Your task to perform on an android device: change text size in settings app Image 0: 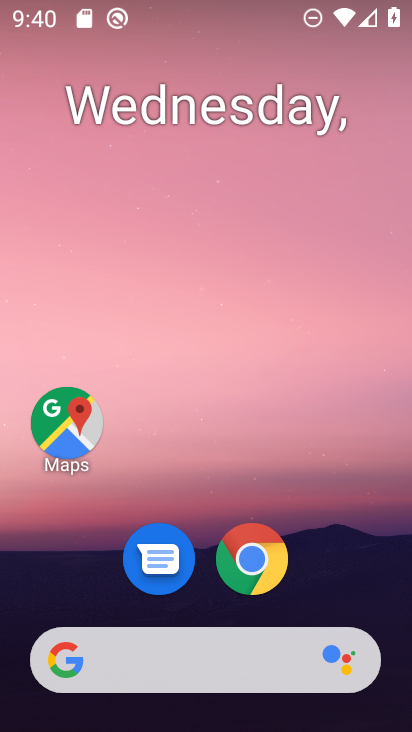
Step 0: drag from (370, 579) to (354, 157)
Your task to perform on an android device: change text size in settings app Image 1: 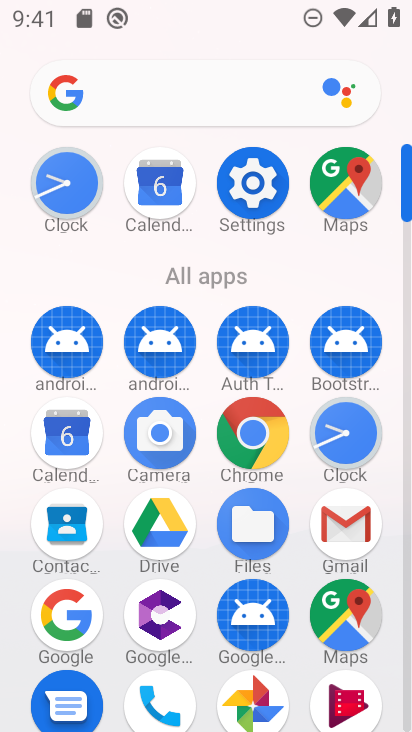
Step 1: click (254, 202)
Your task to perform on an android device: change text size in settings app Image 2: 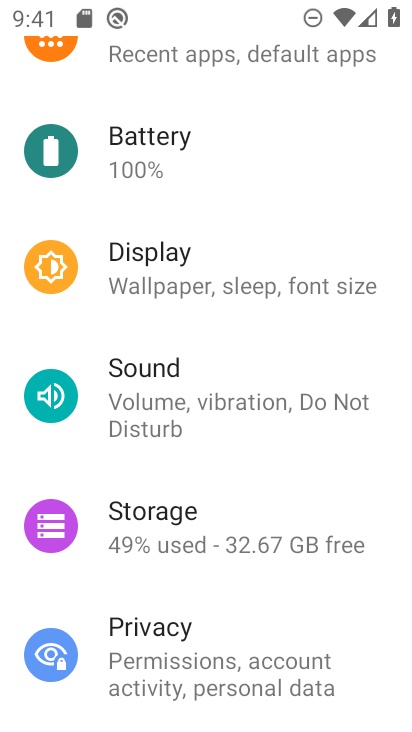
Step 2: drag from (328, 165) to (353, 308)
Your task to perform on an android device: change text size in settings app Image 3: 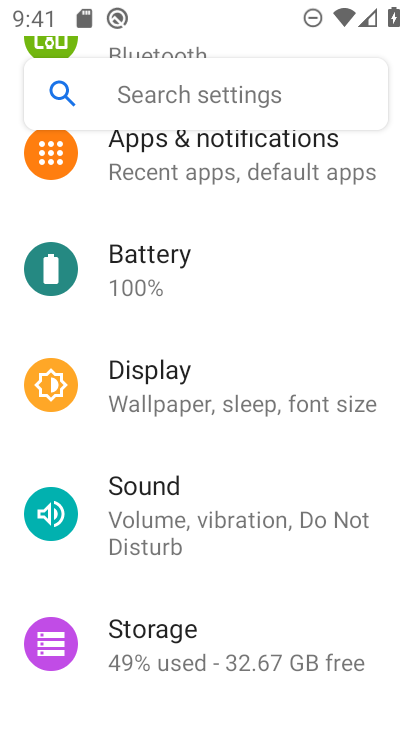
Step 3: drag from (366, 138) to (380, 321)
Your task to perform on an android device: change text size in settings app Image 4: 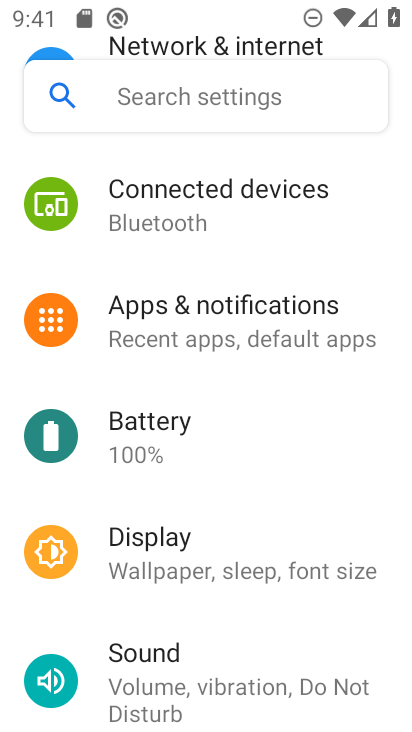
Step 4: drag from (369, 163) to (373, 330)
Your task to perform on an android device: change text size in settings app Image 5: 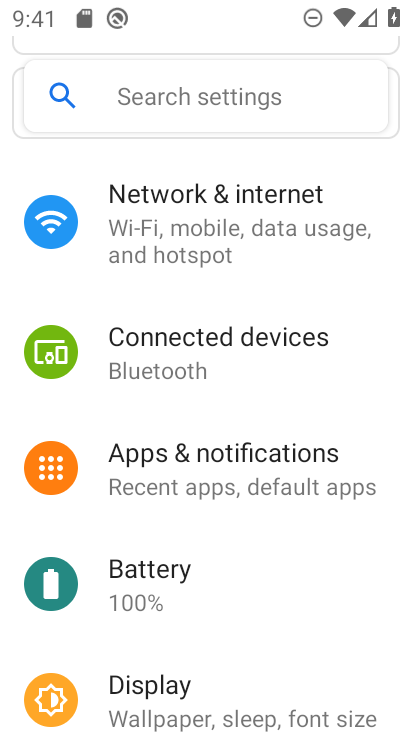
Step 5: drag from (362, 166) to (362, 412)
Your task to perform on an android device: change text size in settings app Image 6: 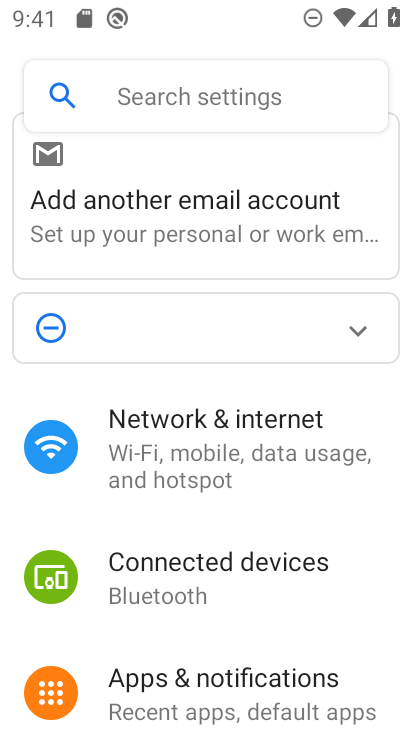
Step 6: drag from (349, 531) to (341, 408)
Your task to perform on an android device: change text size in settings app Image 7: 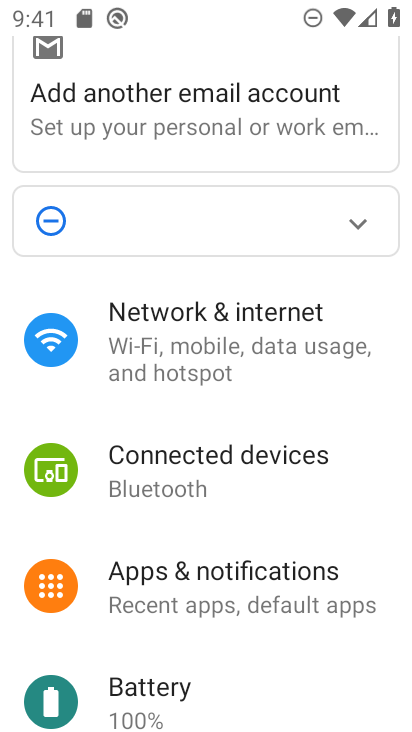
Step 7: drag from (363, 622) to (369, 487)
Your task to perform on an android device: change text size in settings app Image 8: 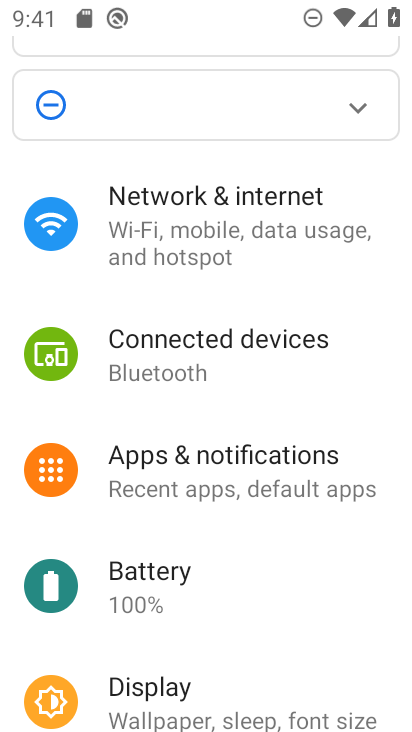
Step 8: drag from (350, 626) to (369, 459)
Your task to perform on an android device: change text size in settings app Image 9: 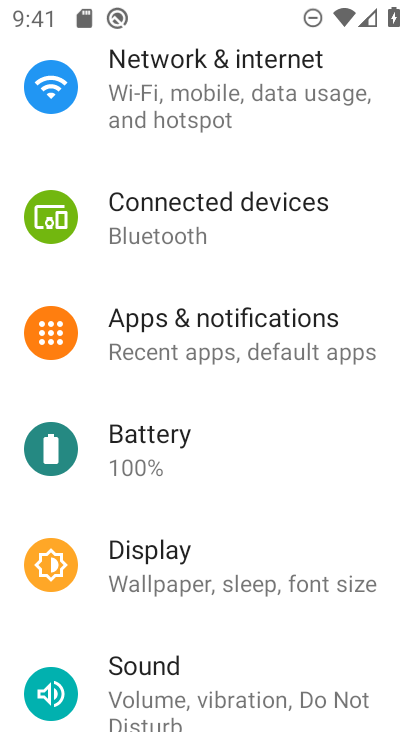
Step 9: drag from (369, 650) to (367, 490)
Your task to perform on an android device: change text size in settings app Image 10: 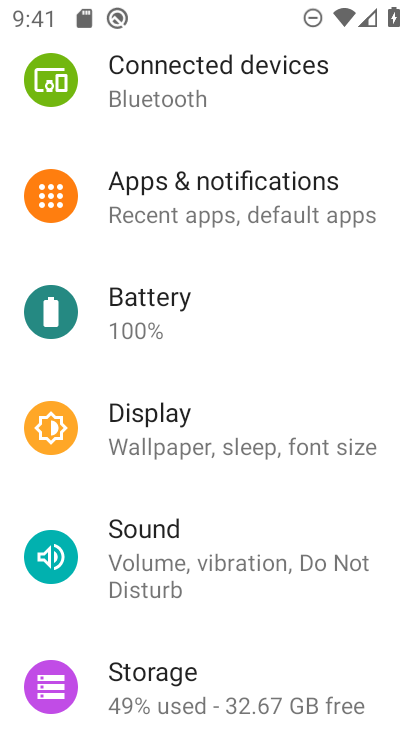
Step 10: click (238, 449)
Your task to perform on an android device: change text size in settings app Image 11: 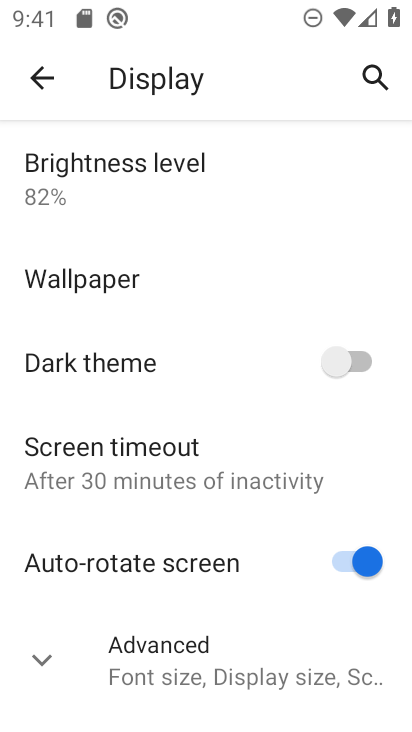
Step 11: click (198, 655)
Your task to perform on an android device: change text size in settings app Image 12: 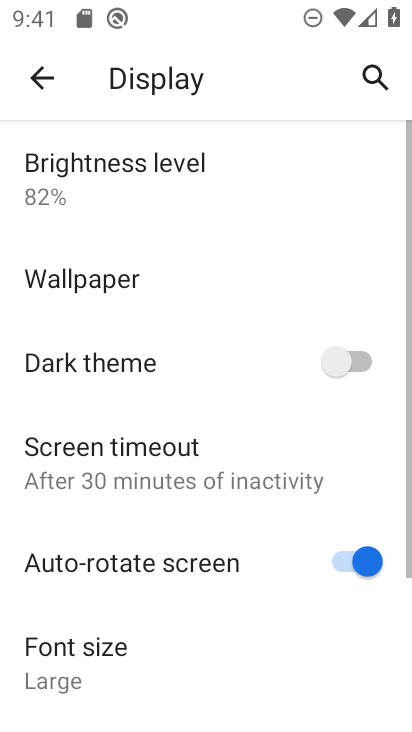
Step 12: drag from (255, 562) to (279, 342)
Your task to perform on an android device: change text size in settings app Image 13: 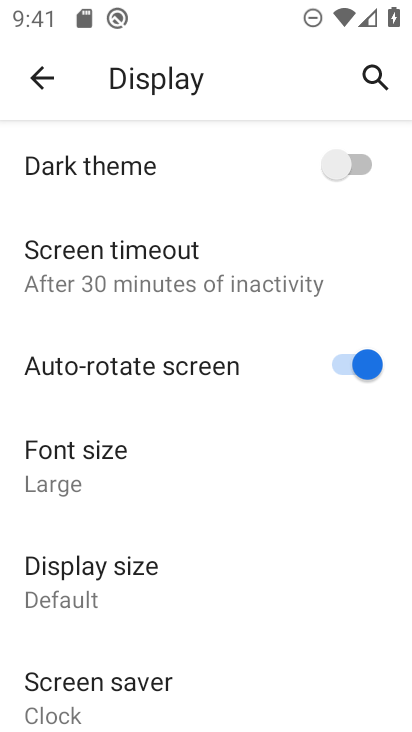
Step 13: click (96, 478)
Your task to perform on an android device: change text size in settings app Image 14: 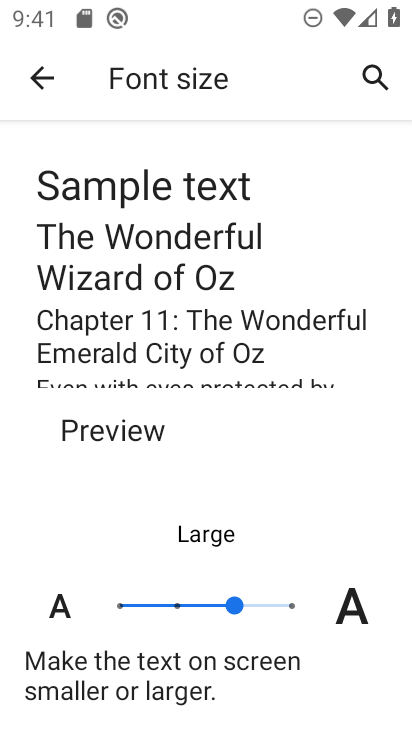
Step 14: click (179, 606)
Your task to perform on an android device: change text size in settings app Image 15: 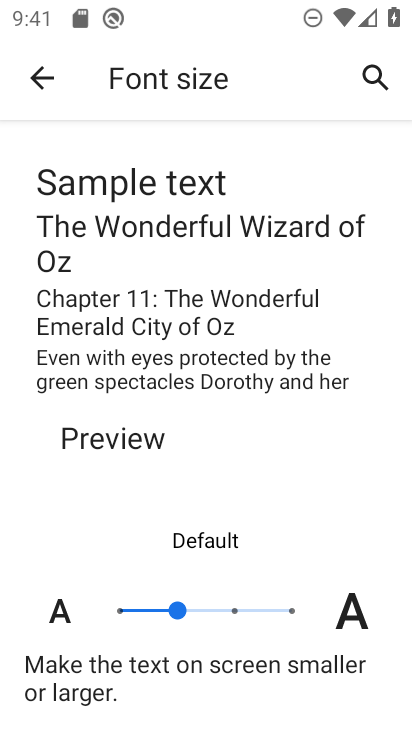
Step 15: task complete